Your task to perform on an android device: Go to Yahoo.com Image 0: 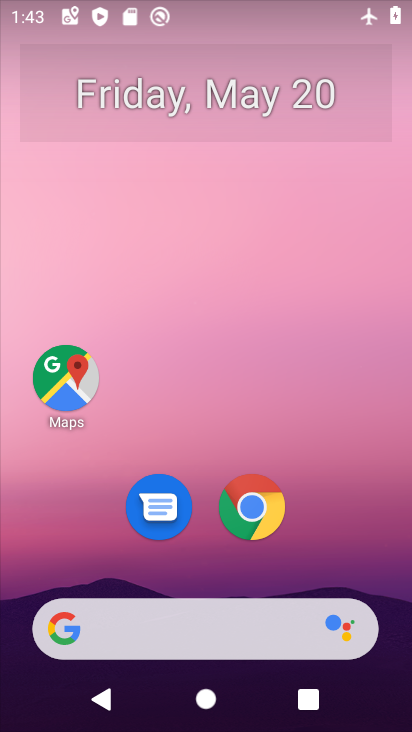
Step 0: click (258, 504)
Your task to perform on an android device: Go to Yahoo.com Image 1: 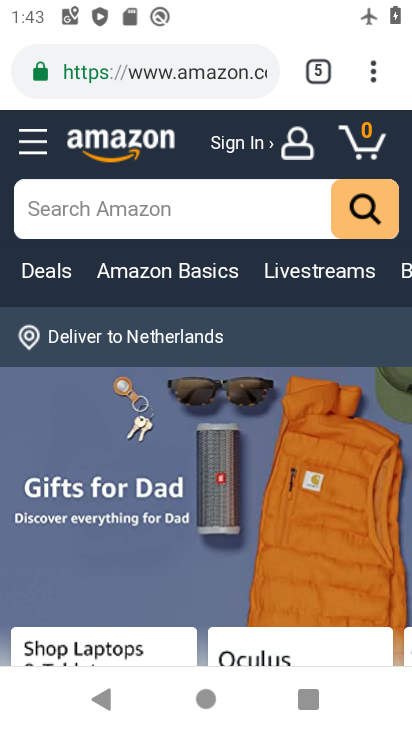
Step 1: click (376, 81)
Your task to perform on an android device: Go to Yahoo.com Image 2: 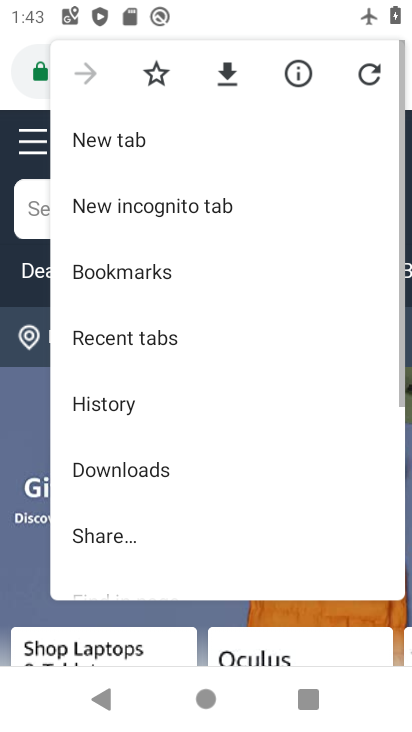
Step 2: click (102, 139)
Your task to perform on an android device: Go to Yahoo.com Image 3: 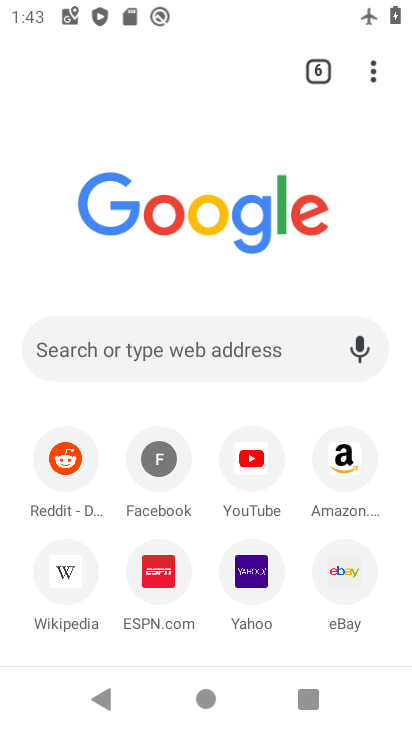
Step 3: click (261, 576)
Your task to perform on an android device: Go to Yahoo.com Image 4: 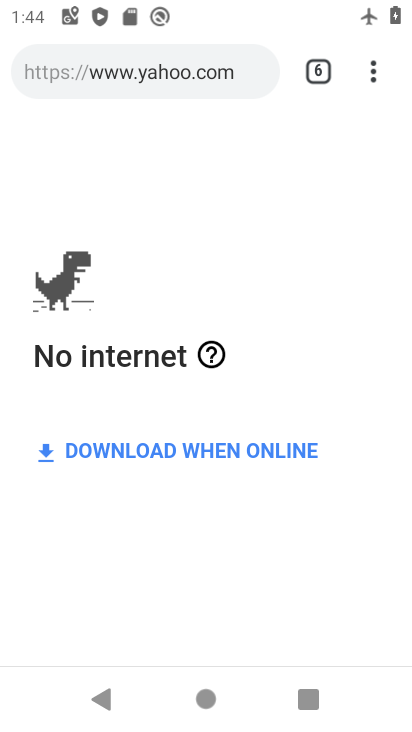
Step 4: task complete